Your task to perform on an android device: Do I have any events today? Image 0: 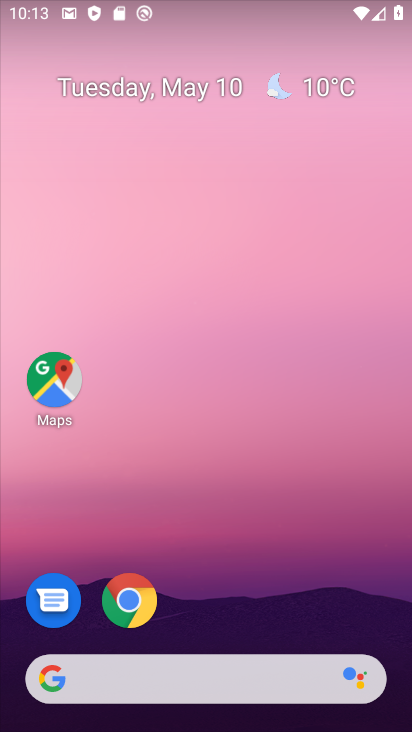
Step 0: drag from (287, 522) to (212, 20)
Your task to perform on an android device: Do I have any events today? Image 1: 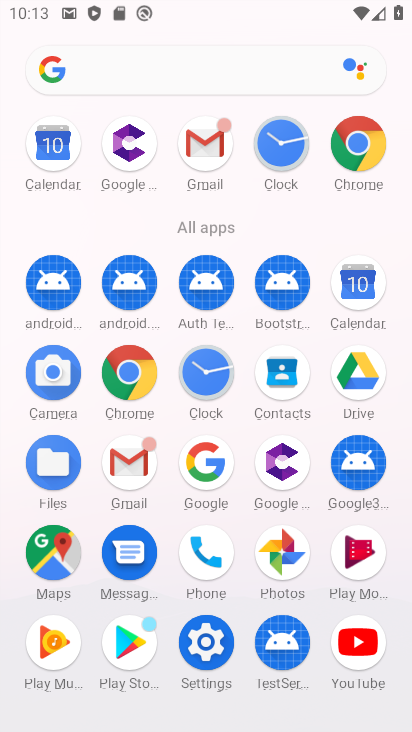
Step 1: drag from (3, 534) to (3, 210)
Your task to perform on an android device: Do I have any events today? Image 2: 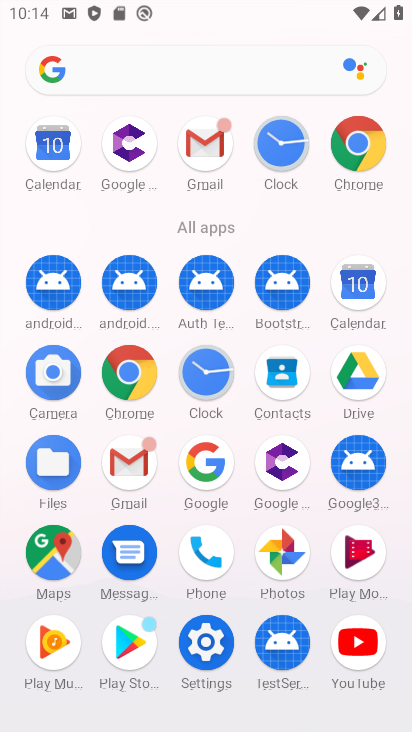
Step 2: click (360, 280)
Your task to perform on an android device: Do I have any events today? Image 3: 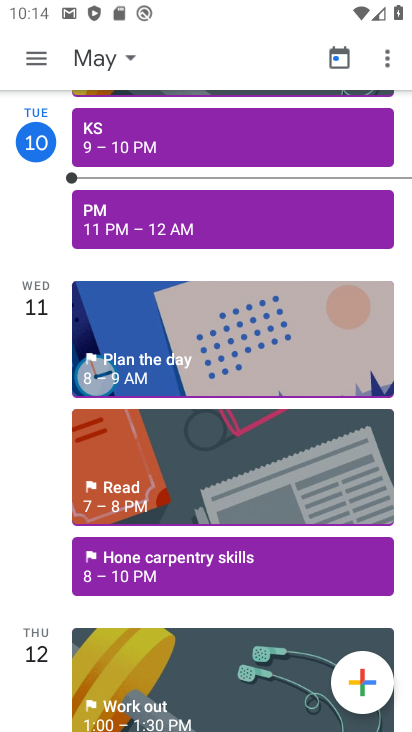
Step 3: click (44, 59)
Your task to perform on an android device: Do I have any events today? Image 4: 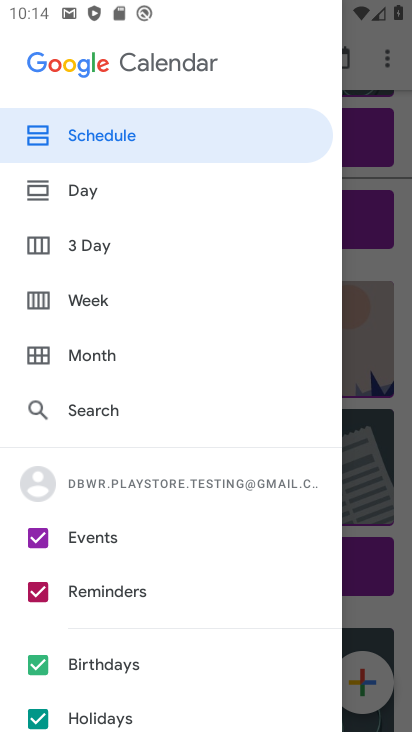
Step 4: click (390, 187)
Your task to perform on an android device: Do I have any events today? Image 5: 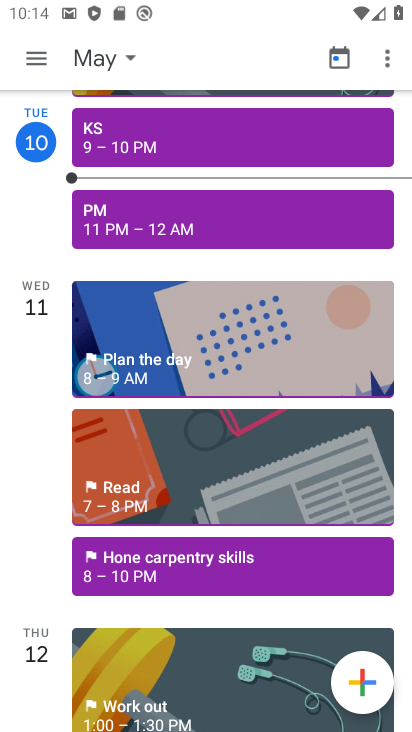
Step 5: click (331, 43)
Your task to perform on an android device: Do I have any events today? Image 6: 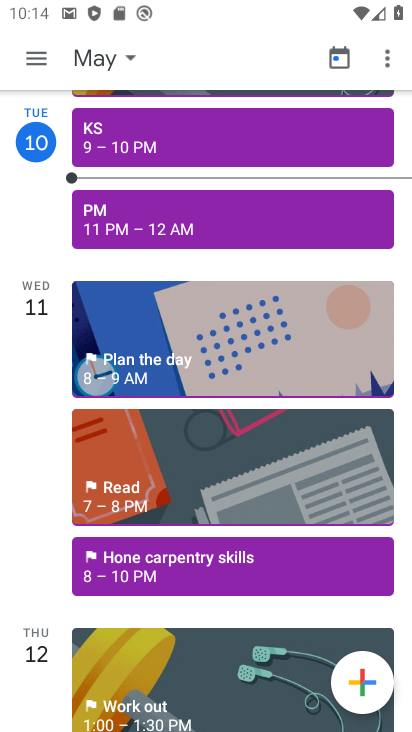
Step 6: click (27, 146)
Your task to perform on an android device: Do I have any events today? Image 7: 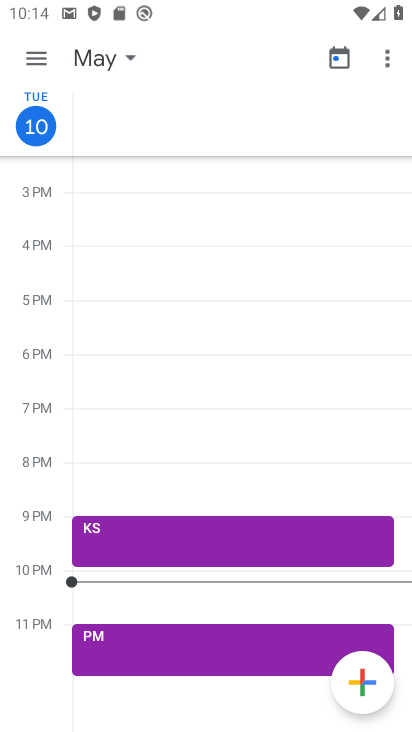
Step 7: task complete